Your task to perform on an android device: Go to network settings Image 0: 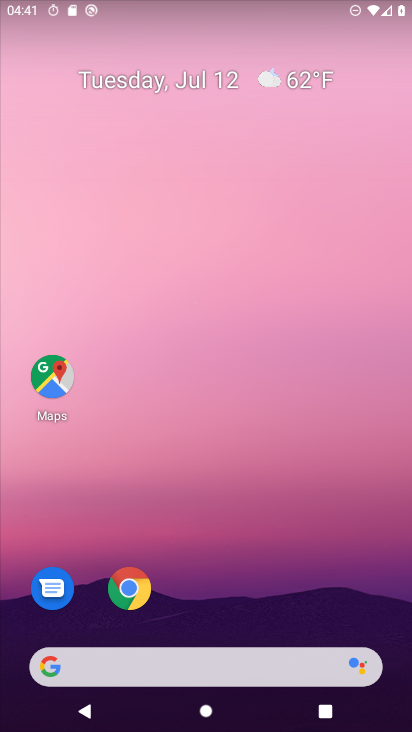
Step 0: drag from (253, 631) to (263, 142)
Your task to perform on an android device: Go to network settings Image 1: 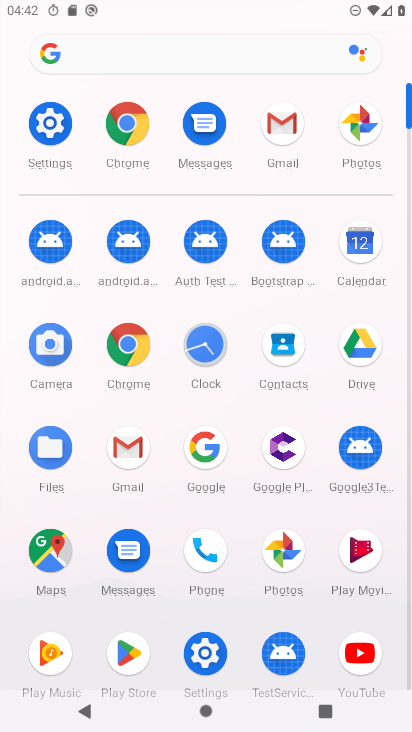
Step 1: click (209, 660)
Your task to perform on an android device: Go to network settings Image 2: 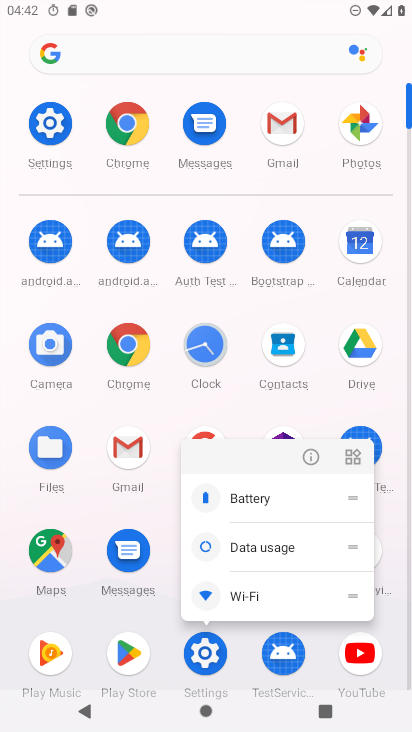
Step 2: click (209, 660)
Your task to perform on an android device: Go to network settings Image 3: 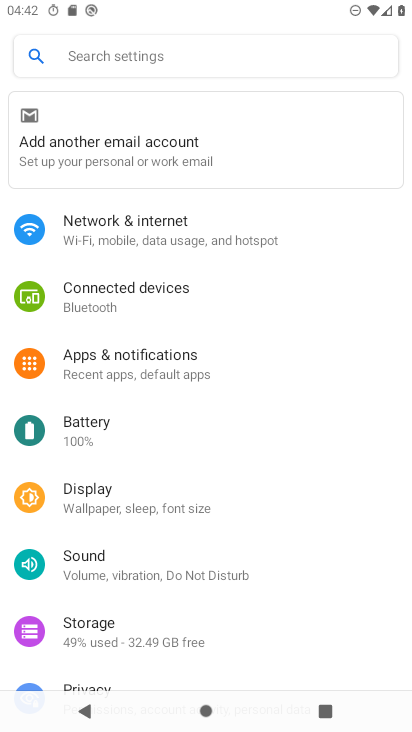
Step 3: click (159, 234)
Your task to perform on an android device: Go to network settings Image 4: 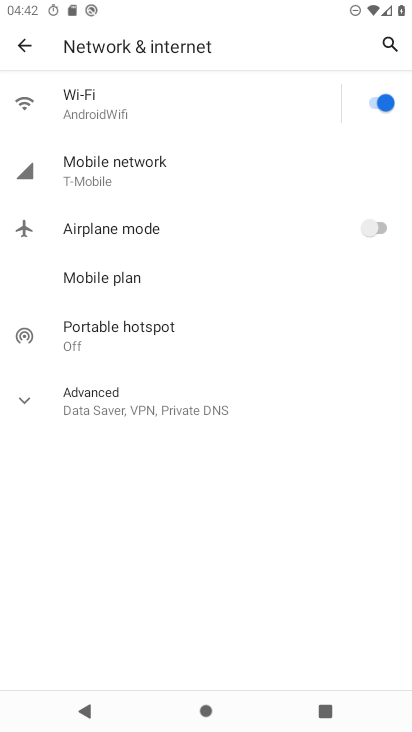
Step 4: click (158, 181)
Your task to perform on an android device: Go to network settings Image 5: 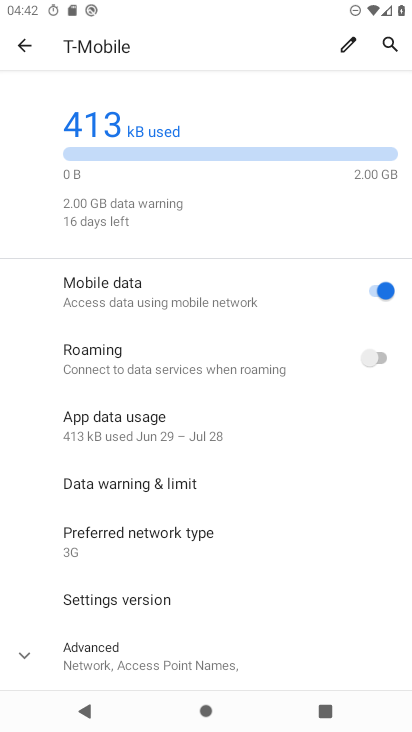
Step 5: task complete